Your task to perform on an android device: toggle pop-ups in chrome Image 0: 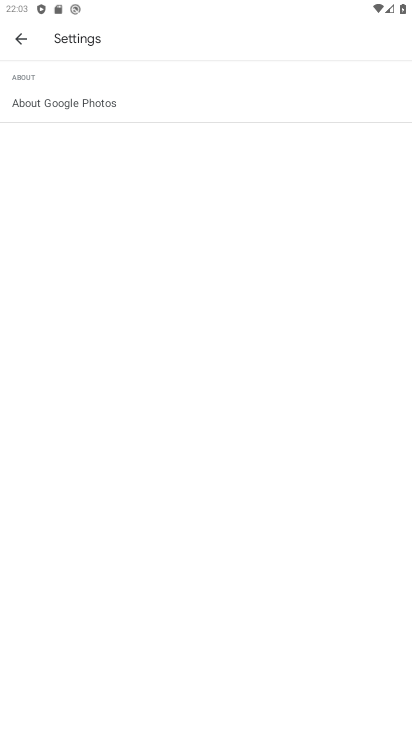
Step 0: press home button
Your task to perform on an android device: toggle pop-ups in chrome Image 1: 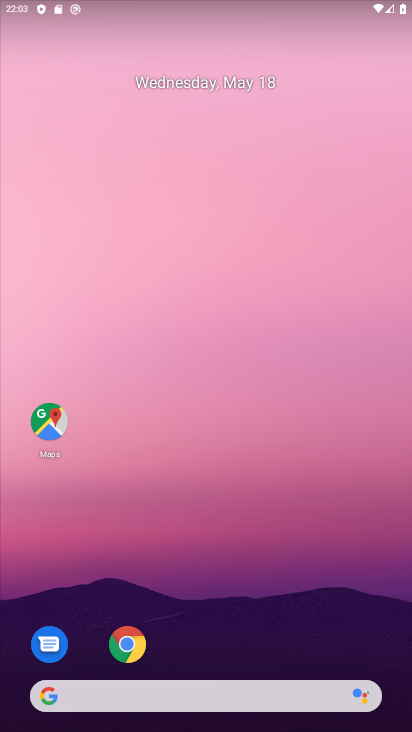
Step 1: click (133, 639)
Your task to perform on an android device: toggle pop-ups in chrome Image 2: 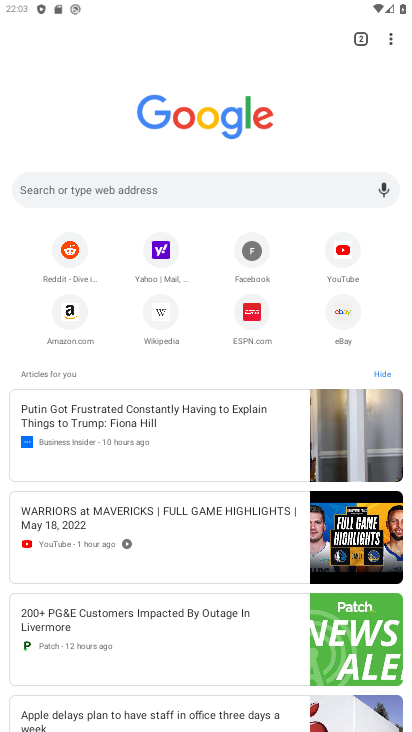
Step 2: drag from (393, 40) to (268, 332)
Your task to perform on an android device: toggle pop-ups in chrome Image 3: 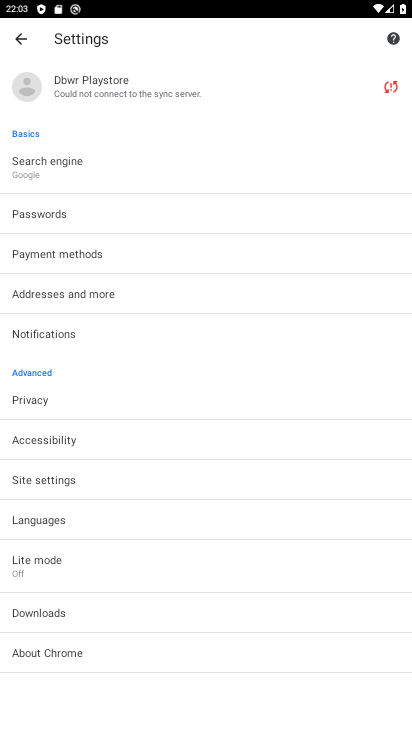
Step 3: click (110, 478)
Your task to perform on an android device: toggle pop-ups in chrome Image 4: 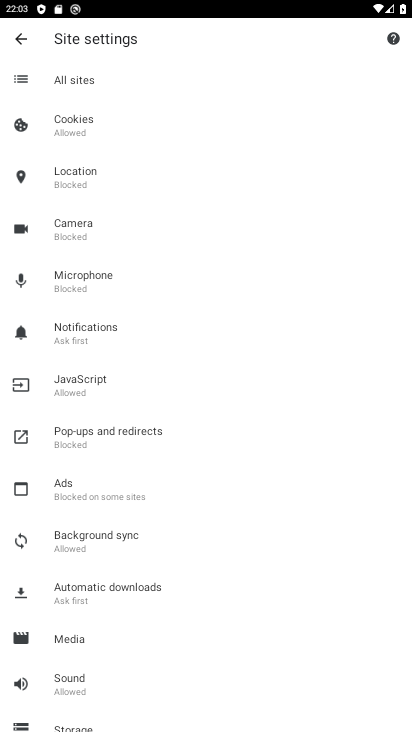
Step 4: click (122, 445)
Your task to perform on an android device: toggle pop-ups in chrome Image 5: 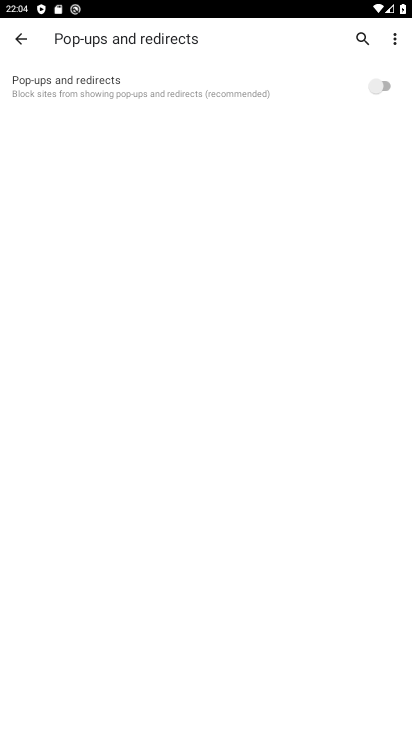
Step 5: click (385, 73)
Your task to perform on an android device: toggle pop-ups in chrome Image 6: 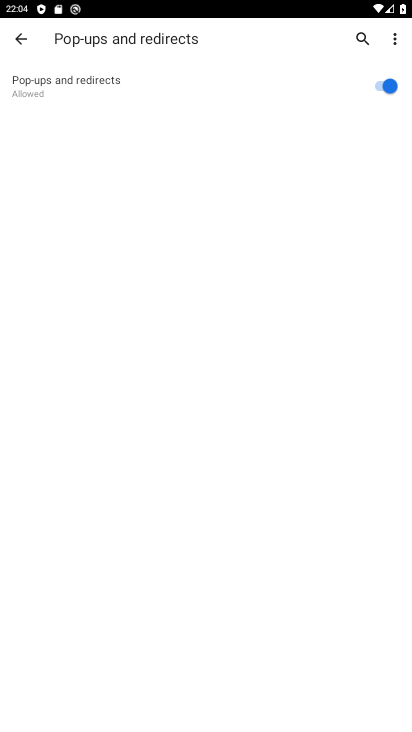
Step 6: task complete